Your task to perform on an android device: Is it going to rain today? Image 0: 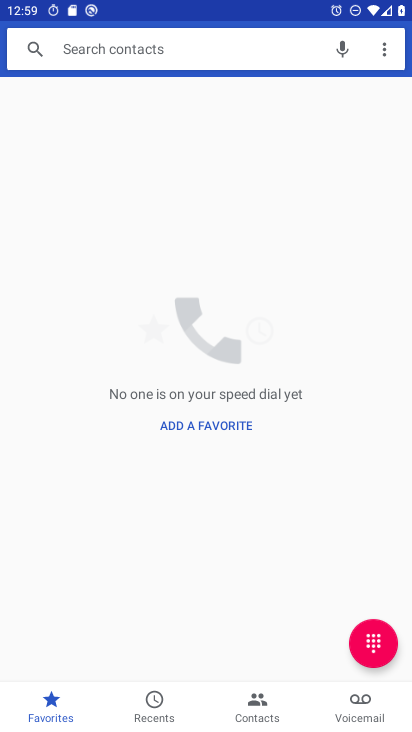
Step 0: press home button
Your task to perform on an android device: Is it going to rain today? Image 1: 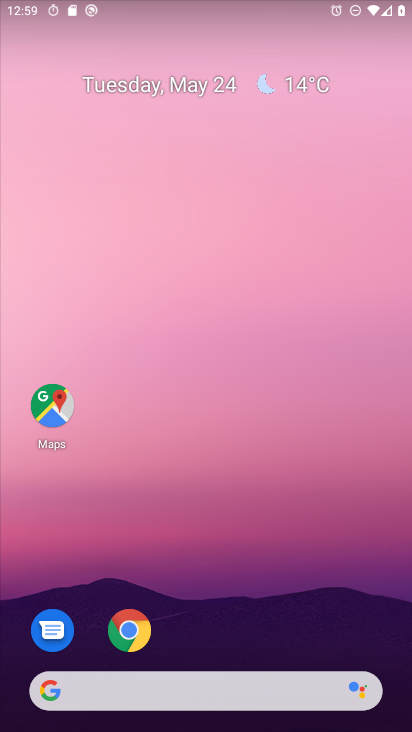
Step 1: drag from (330, 594) to (342, 141)
Your task to perform on an android device: Is it going to rain today? Image 2: 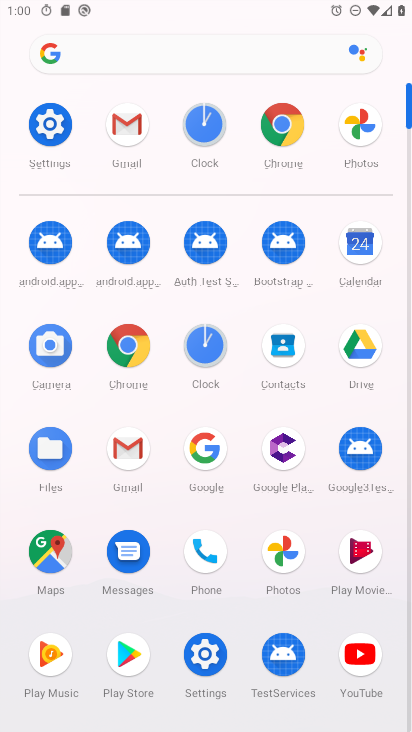
Step 2: click (119, 352)
Your task to perform on an android device: Is it going to rain today? Image 3: 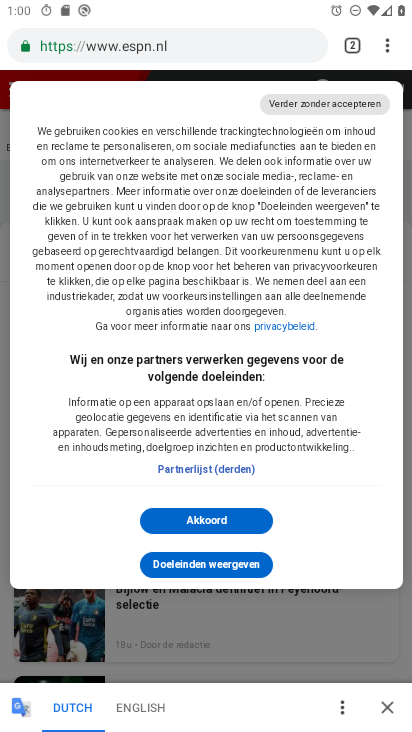
Step 3: click (187, 42)
Your task to perform on an android device: Is it going to rain today? Image 4: 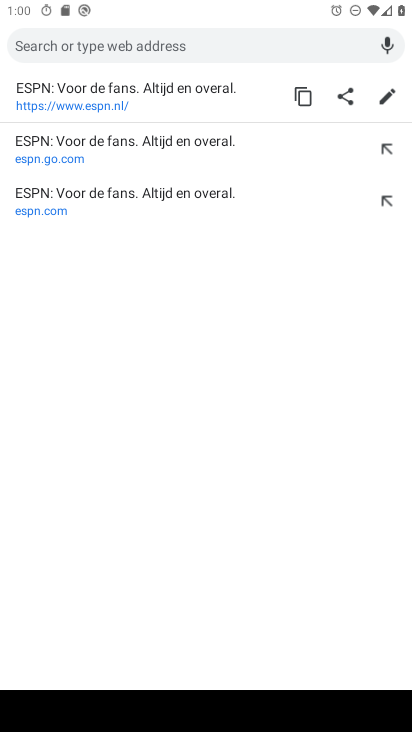
Step 4: type "is it going to rain today "
Your task to perform on an android device: Is it going to rain today? Image 5: 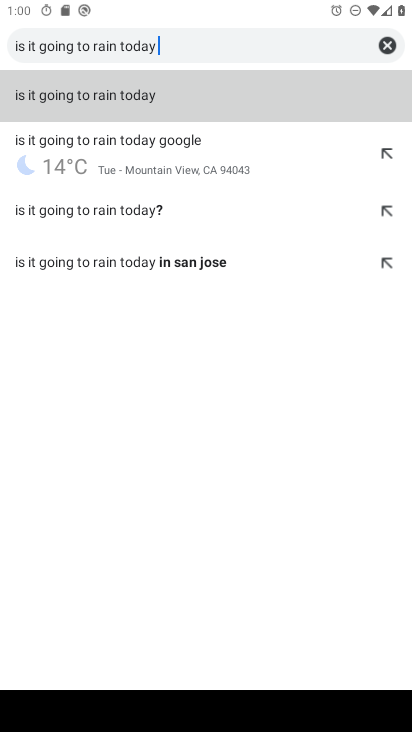
Step 5: click (144, 90)
Your task to perform on an android device: Is it going to rain today? Image 6: 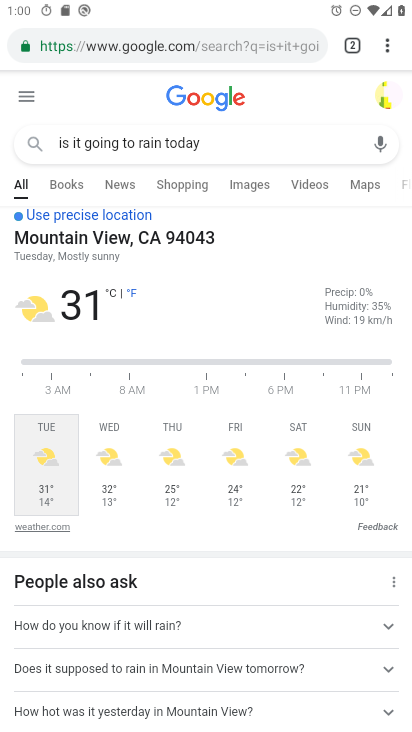
Step 6: task complete